Your task to perform on an android device: turn off smart reply in the gmail app Image 0: 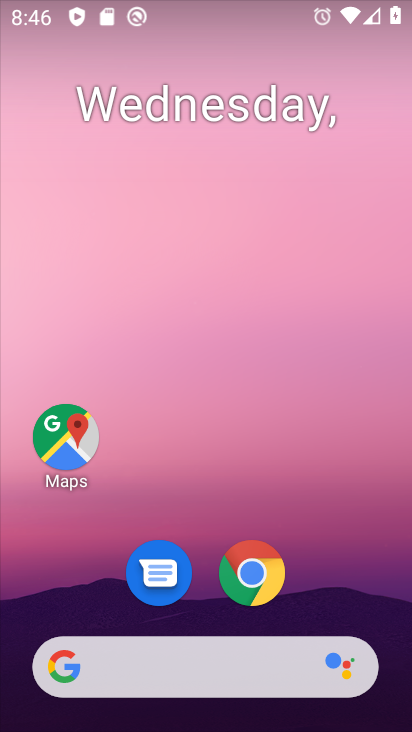
Step 0: drag from (273, 595) to (262, 63)
Your task to perform on an android device: turn off smart reply in the gmail app Image 1: 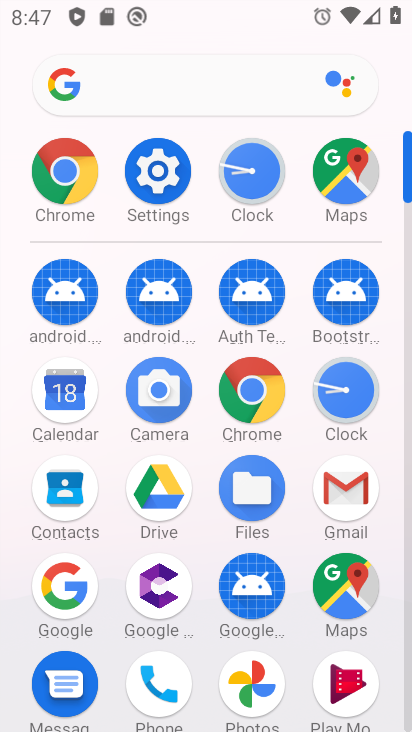
Step 1: click (377, 500)
Your task to perform on an android device: turn off smart reply in the gmail app Image 2: 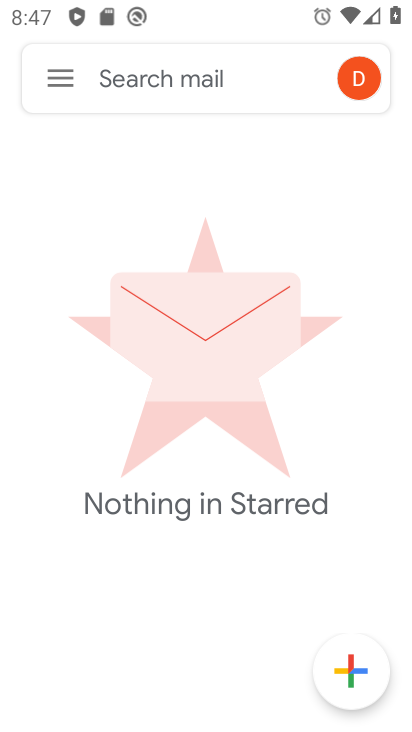
Step 2: click (70, 76)
Your task to perform on an android device: turn off smart reply in the gmail app Image 3: 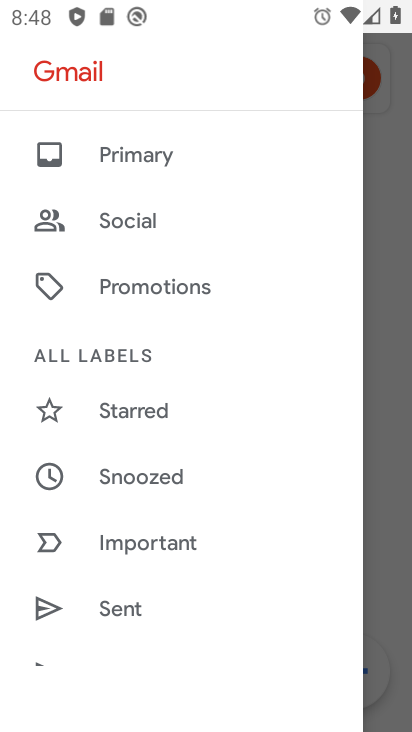
Step 3: drag from (175, 540) to (239, 134)
Your task to perform on an android device: turn off smart reply in the gmail app Image 4: 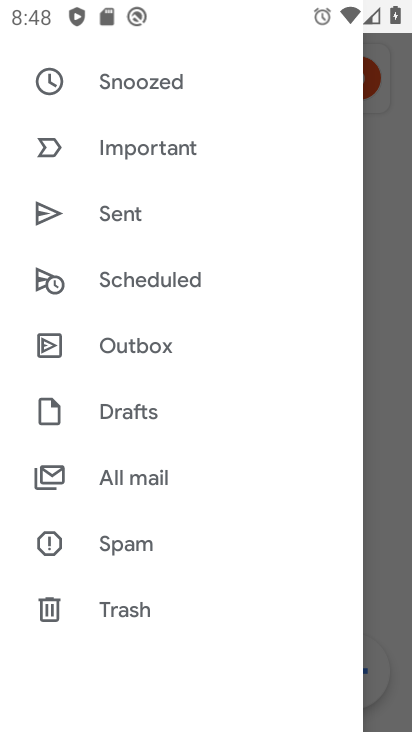
Step 4: drag from (156, 613) to (266, 110)
Your task to perform on an android device: turn off smart reply in the gmail app Image 5: 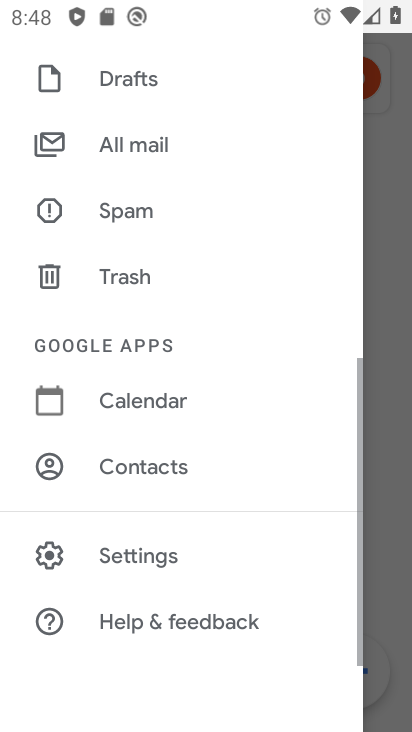
Step 5: click (200, 549)
Your task to perform on an android device: turn off smart reply in the gmail app Image 6: 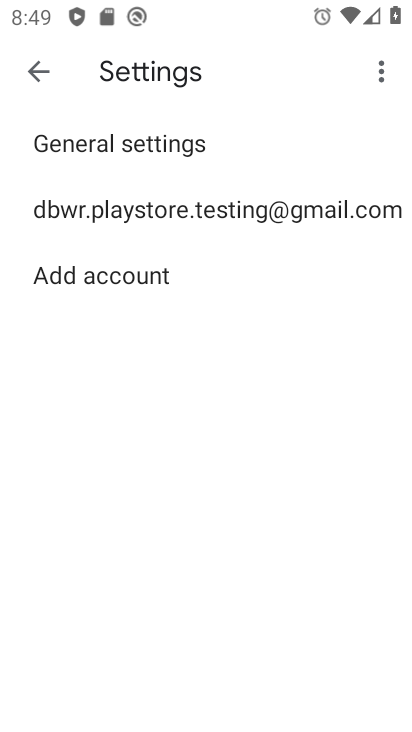
Step 6: click (197, 212)
Your task to perform on an android device: turn off smart reply in the gmail app Image 7: 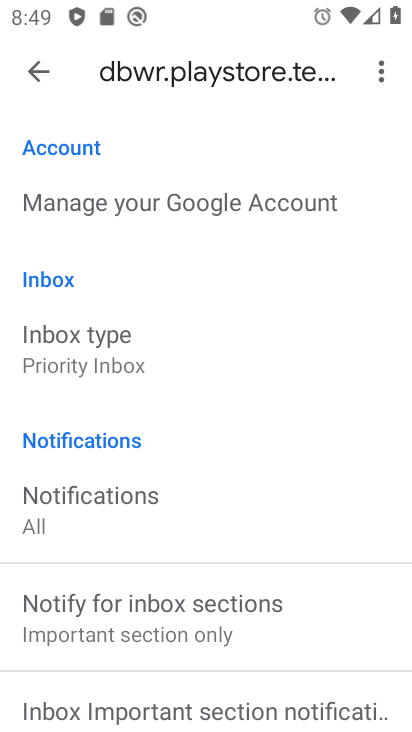
Step 7: drag from (192, 548) to (256, 171)
Your task to perform on an android device: turn off smart reply in the gmail app Image 8: 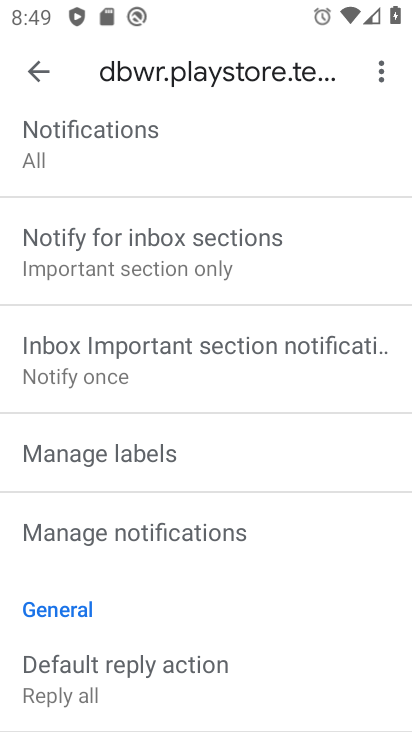
Step 8: drag from (187, 597) to (281, 170)
Your task to perform on an android device: turn off smart reply in the gmail app Image 9: 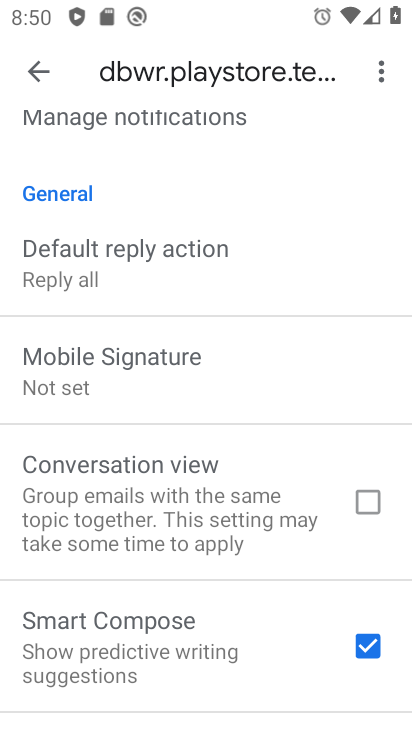
Step 9: drag from (177, 537) to (188, 83)
Your task to perform on an android device: turn off smart reply in the gmail app Image 10: 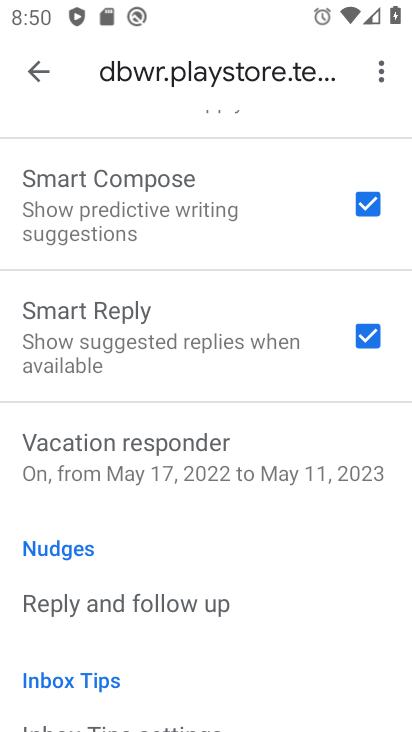
Step 10: click (364, 339)
Your task to perform on an android device: turn off smart reply in the gmail app Image 11: 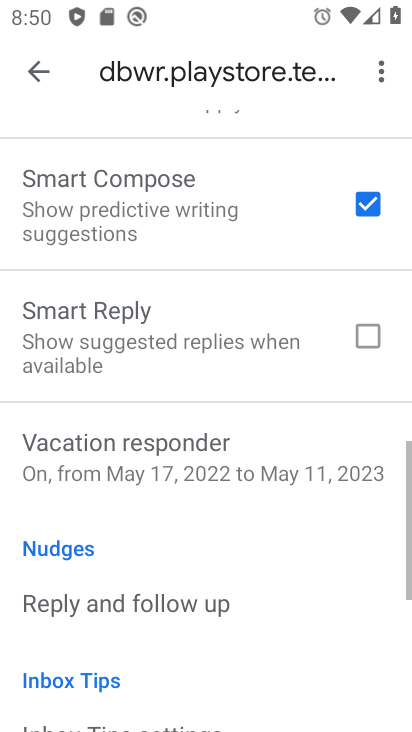
Step 11: task complete